Your task to perform on an android device: find photos in the google photos app Image 0: 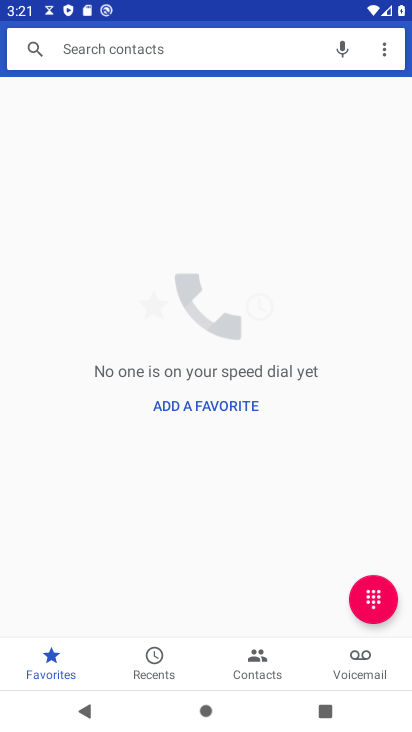
Step 0: press home button
Your task to perform on an android device: find photos in the google photos app Image 1: 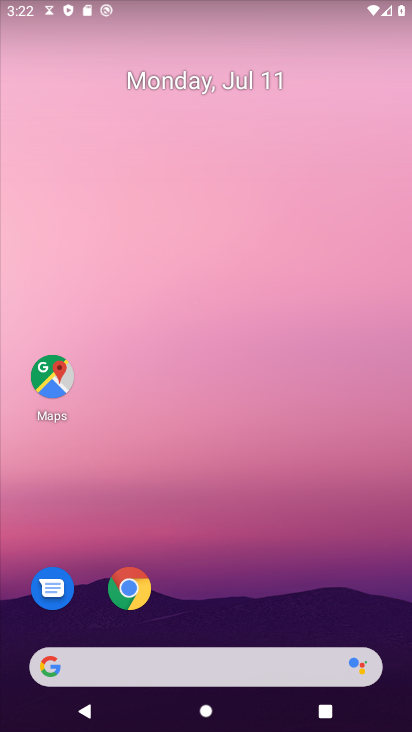
Step 1: drag from (281, 571) to (281, 84)
Your task to perform on an android device: find photos in the google photos app Image 2: 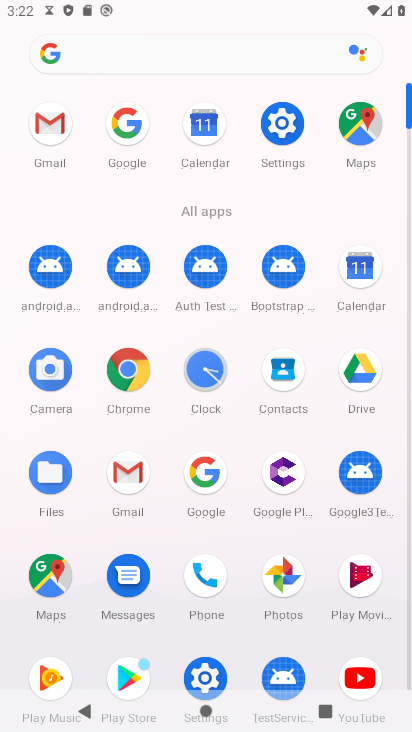
Step 2: click (283, 583)
Your task to perform on an android device: find photos in the google photos app Image 3: 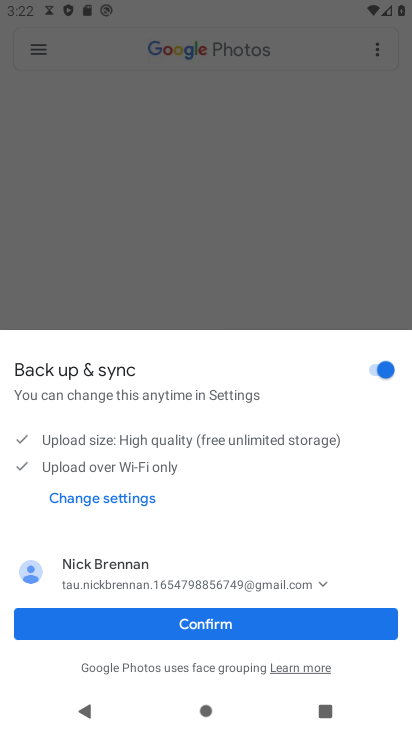
Step 3: click (184, 618)
Your task to perform on an android device: find photos in the google photos app Image 4: 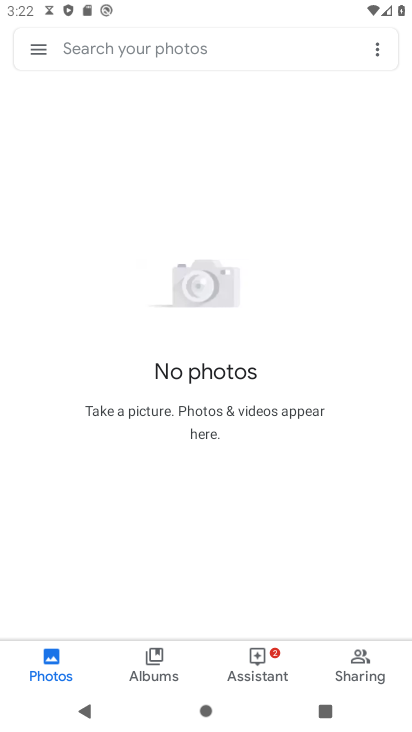
Step 4: task complete